Your task to perform on an android device: change the clock display to show seconds Image 0: 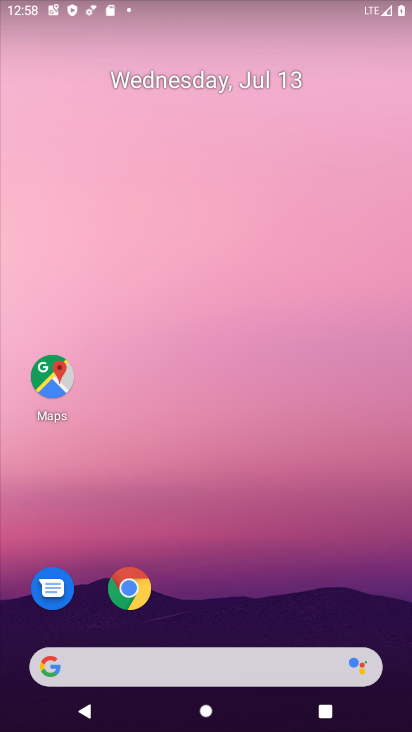
Step 0: drag from (401, 675) to (346, 175)
Your task to perform on an android device: change the clock display to show seconds Image 1: 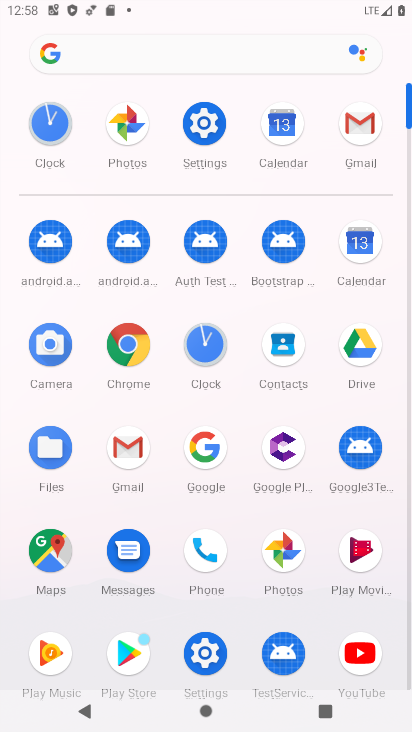
Step 1: click (202, 350)
Your task to perform on an android device: change the clock display to show seconds Image 2: 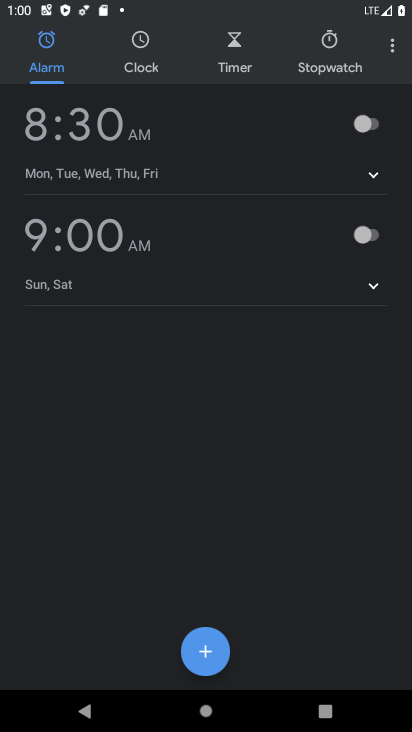
Step 2: click (392, 51)
Your task to perform on an android device: change the clock display to show seconds Image 3: 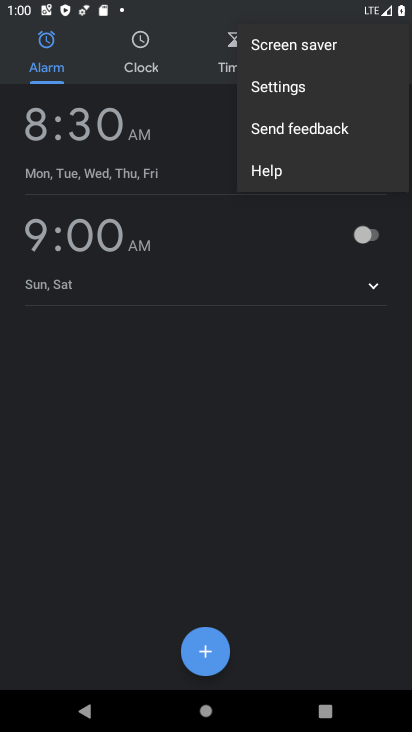
Step 3: click (292, 86)
Your task to perform on an android device: change the clock display to show seconds Image 4: 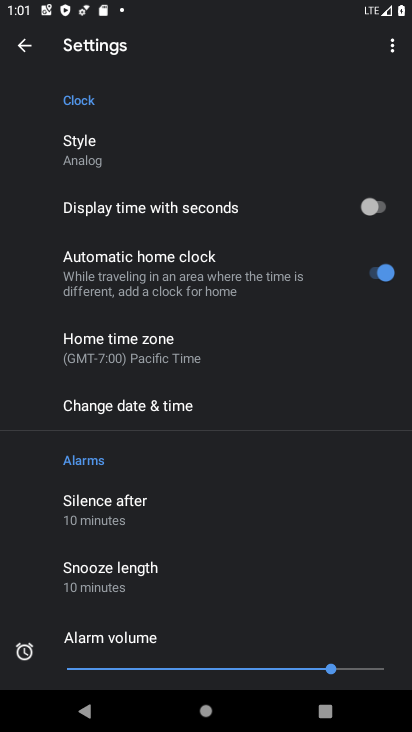
Step 4: click (371, 203)
Your task to perform on an android device: change the clock display to show seconds Image 5: 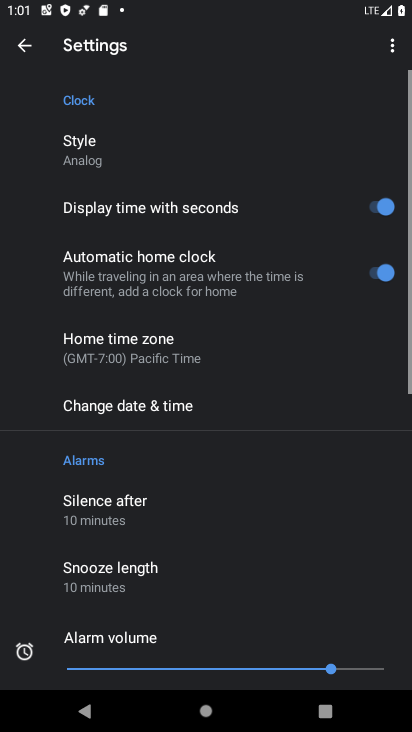
Step 5: task complete